Your task to perform on an android device: Check the news Image 0: 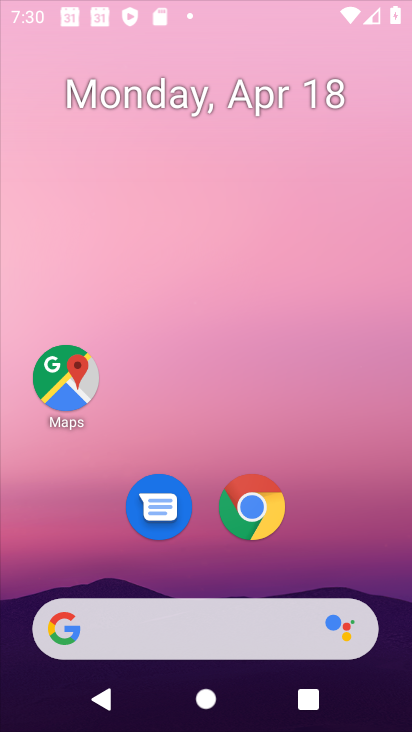
Step 0: click (263, 45)
Your task to perform on an android device: Check the news Image 1: 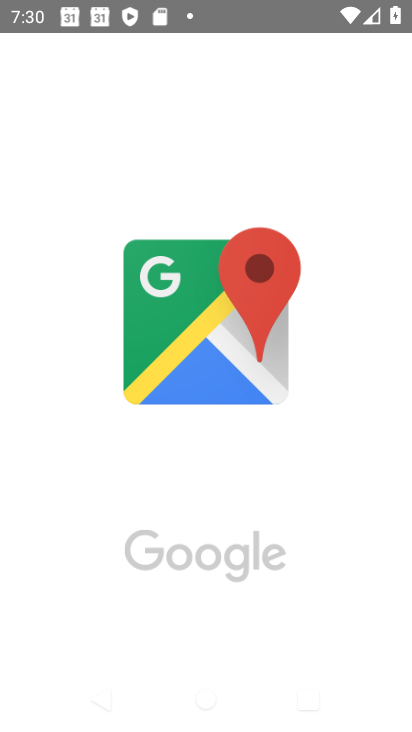
Step 1: press home button
Your task to perform on an android device: Check the news Image 2: 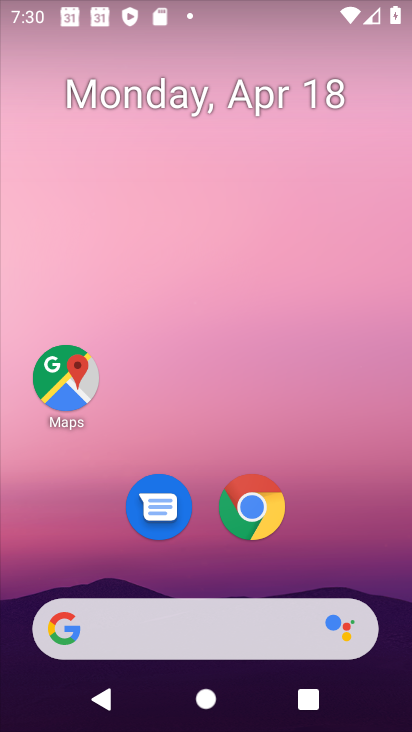
Step 2: drag from (1, 503) to (296, 52)
Your task to perform on an android device: Check the news Image 3: 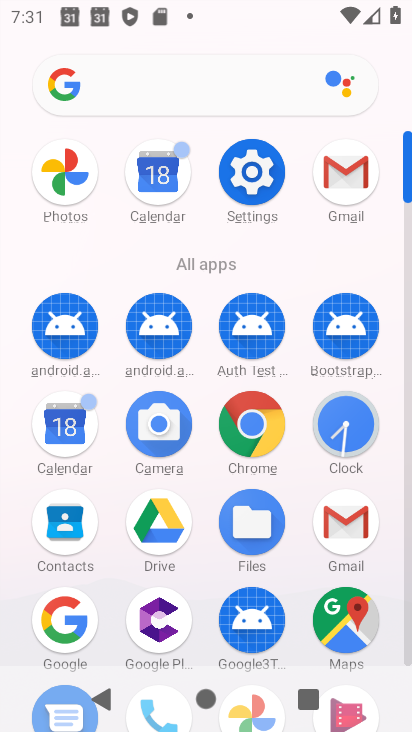
Step 3: click (258, 433)
Your task to perform on an android device: Check the news Image 4: 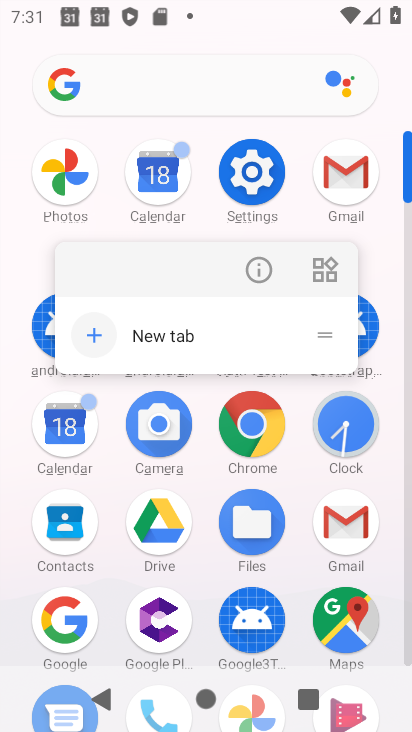
Step 4: click (258, 433)
Your task to perform on an android device: Check the news Image 5: 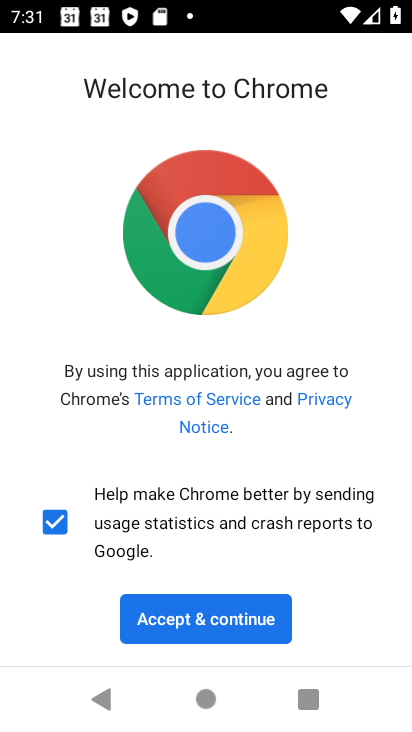
Step 5: click (184, 616)
Your task to perform on an android device: Check the news Image 6: 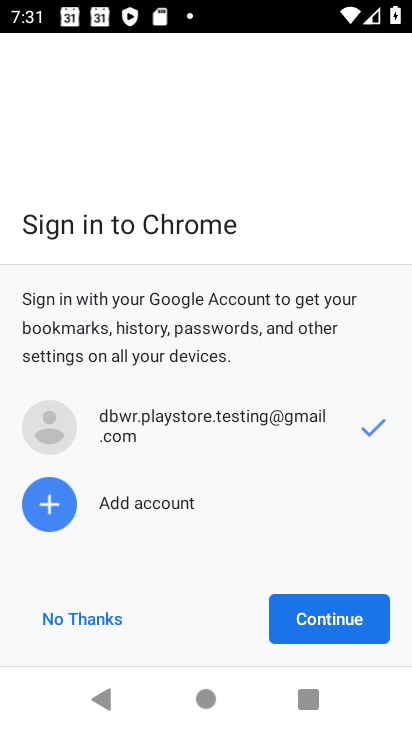
Step 6: click (286, 608)
Your task to perform on an android device: Check the news Image 7: 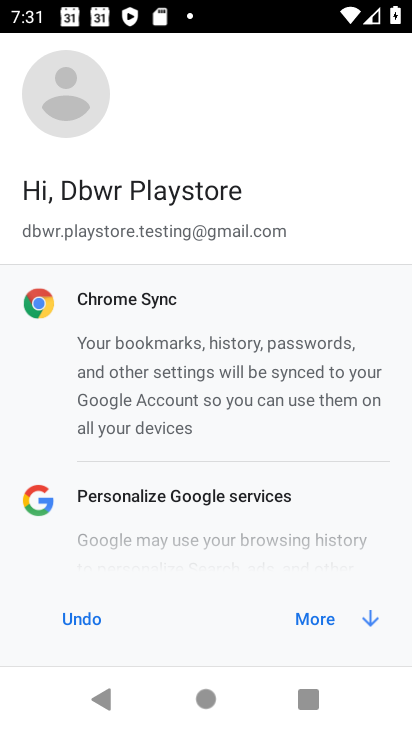
Step 7: click (286, 608)
Your task to perform on an android device: Check the news Image 8: 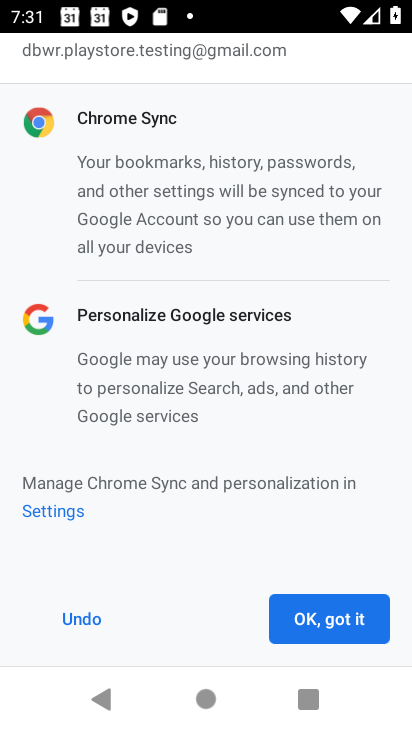
Step 8: click (286, 608)
Your task to perform on an android device: Check the news Image 9: 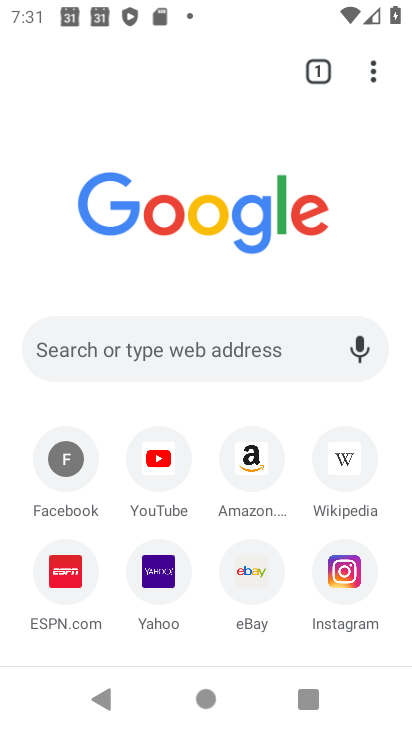
Step 9: drag from (123, 598) to (115, 267)
Your task to perform on an android device: Check the news Image 10: 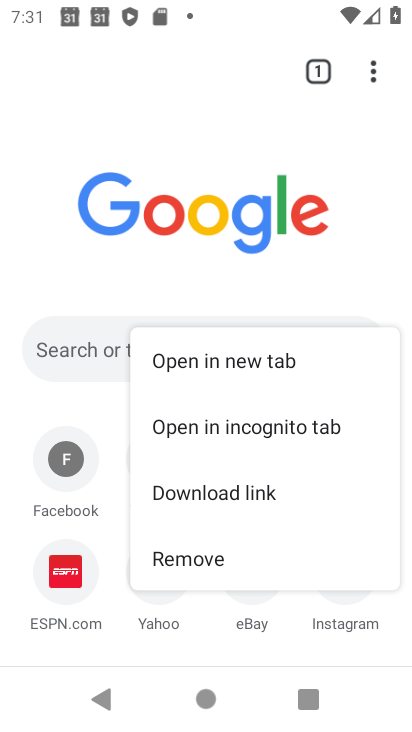
Step 10: click (115, 267)
Your task to perform on an android device: Check the news Image 11: 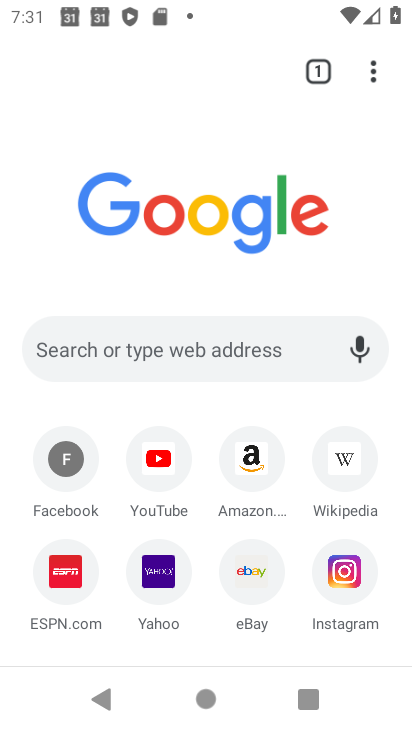
Step 11: drag from (5, 554) to (142, 128)
Your task to perform on an android device: Check the news Image 12: 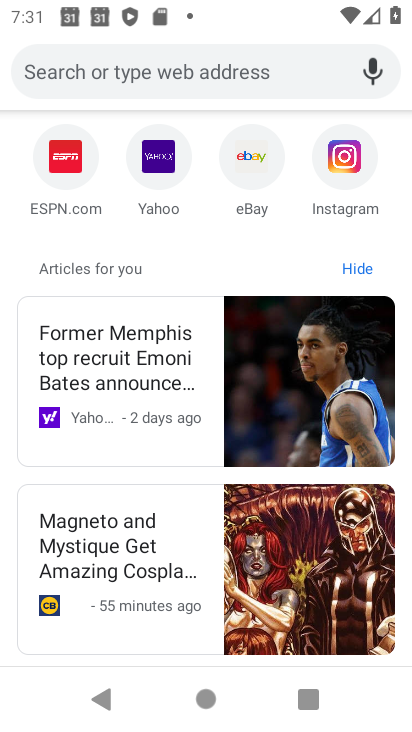
Step 12: click (177, 330)
Your task to perform on an android device: Check the news Image 13: 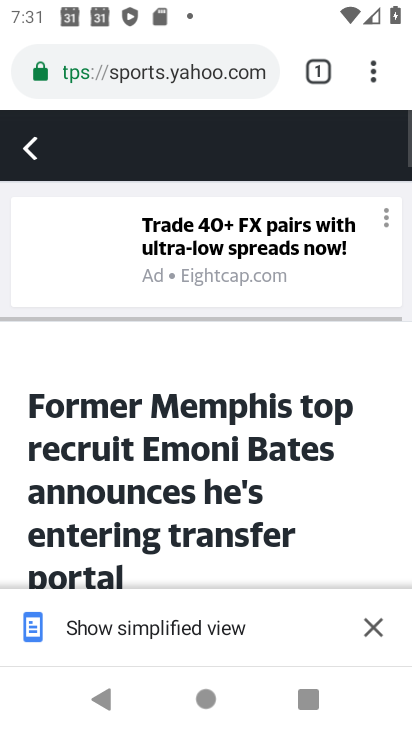
Step 13: task complete